Your task to perform on an android device: Clear the cart on walmart.com. Image 0: 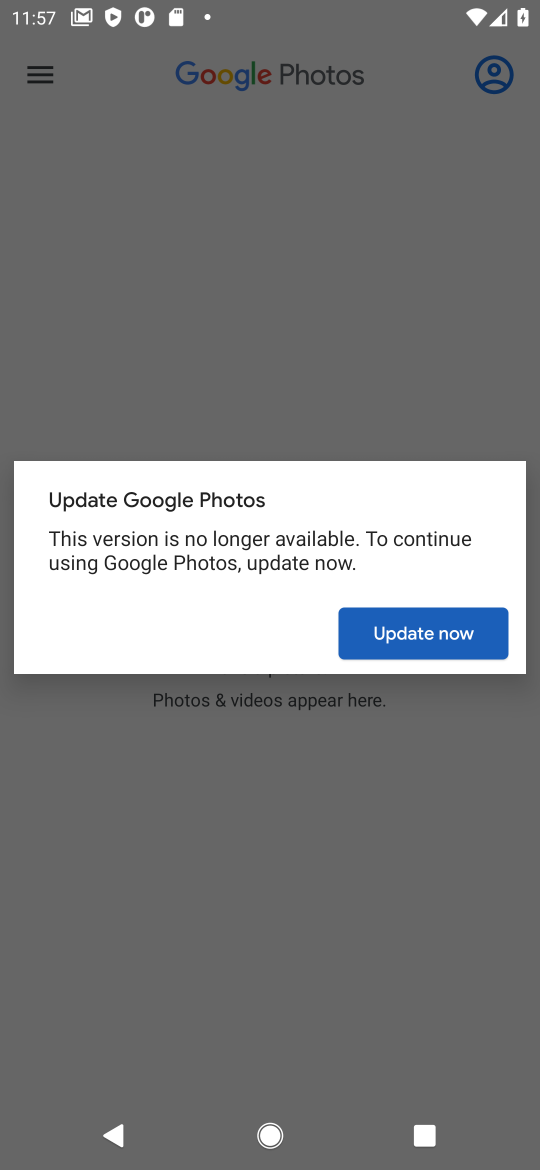
Step 0: press home button
Your task to perform on an android device: Clear the cart on walmart.com. Image 1: 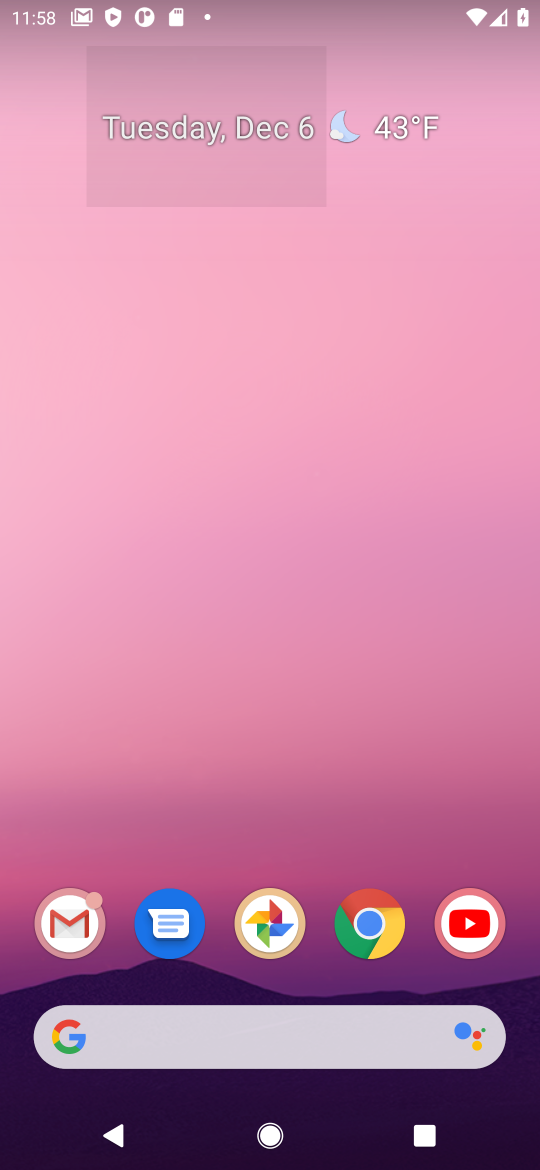
Step 1: click (376, 922)
Your task to perform on an android device: Clear the cart on walmart.com. Image 2: 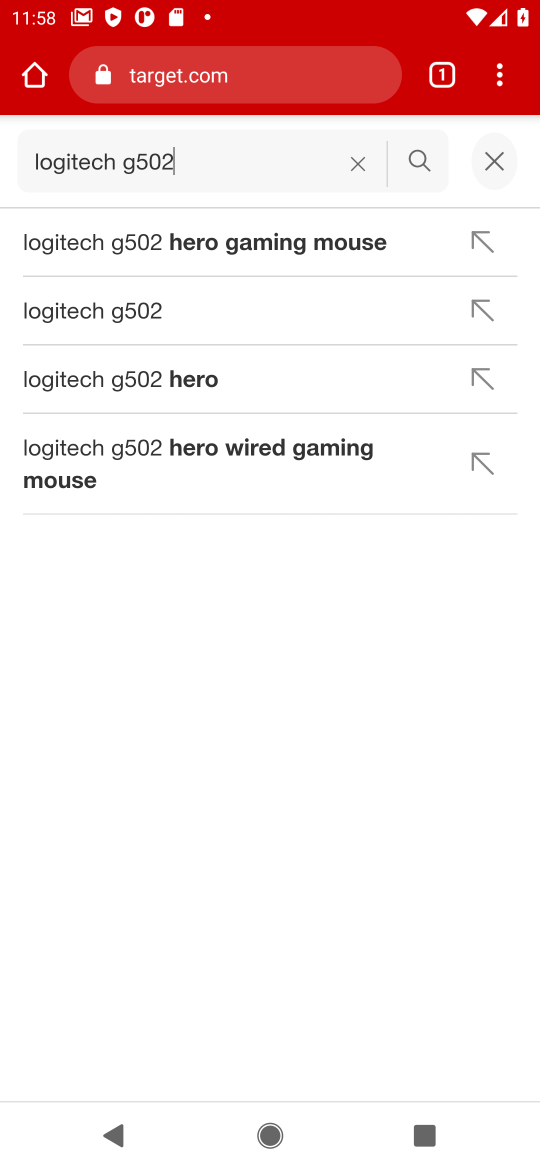
Step 2: click (300, 68)
Your task to perform on an android device: Clear the cart on walmart.com. Image 3: 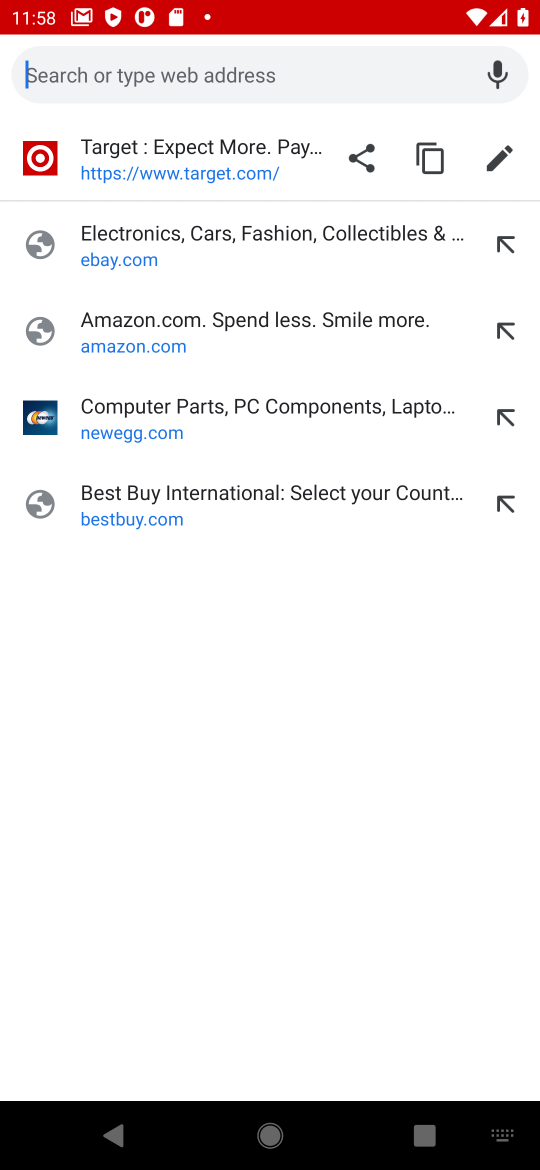
Step 3: type "WALMART"
Your task to perform on an android device: Clear the cart on walmart.com. Image 4: 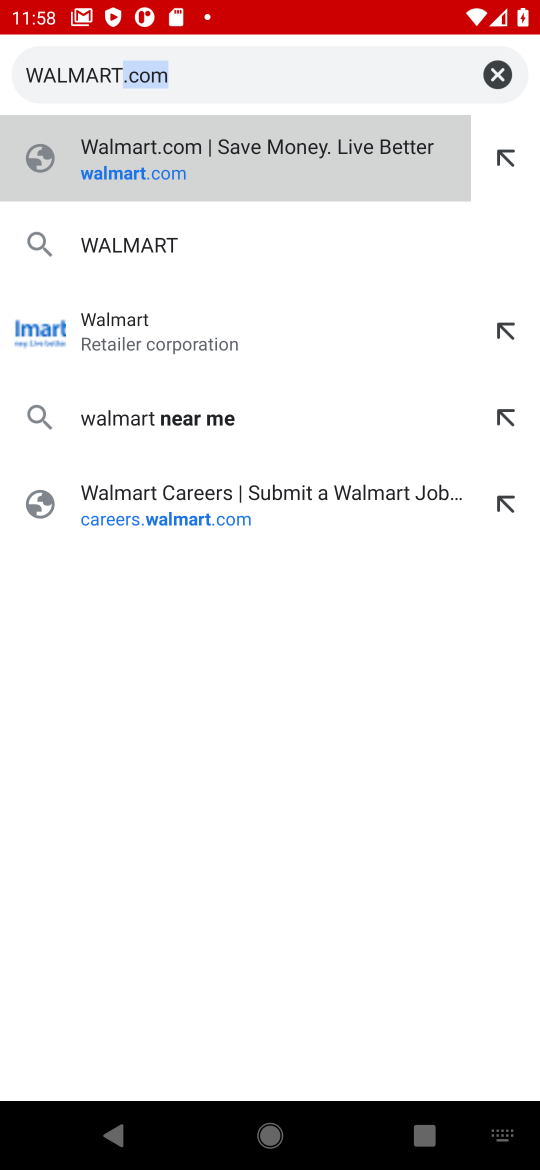
Step 4: click (224, 136)
Your task to perform on an android device: Clear the cart on walmart.com. Image 5: 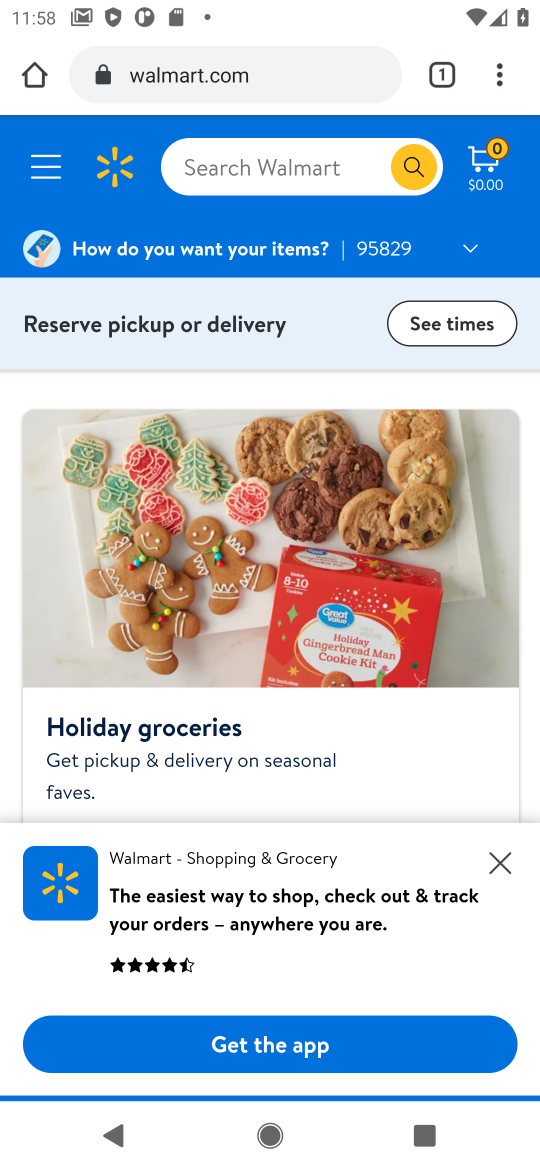
Step 5: task complete